Your task to perform on an android device: Add razer deathadder to the cart on walmart.com, then select checkout. Image 0: 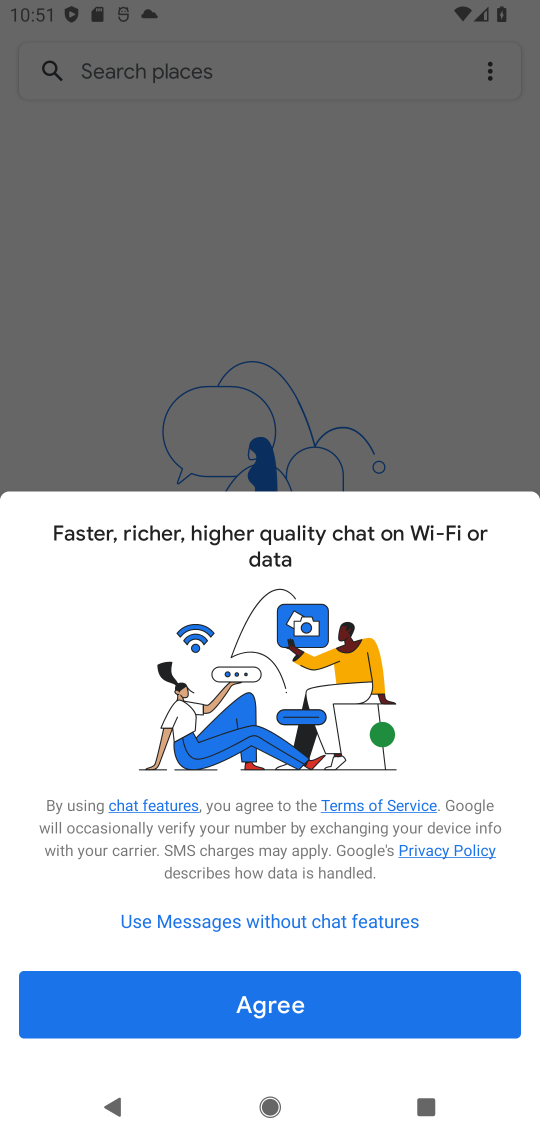
Step 0: press home button
Your task to perform on an android device: Add razer deathadder to the cart on walmart.com, then select checkout. Image 1: 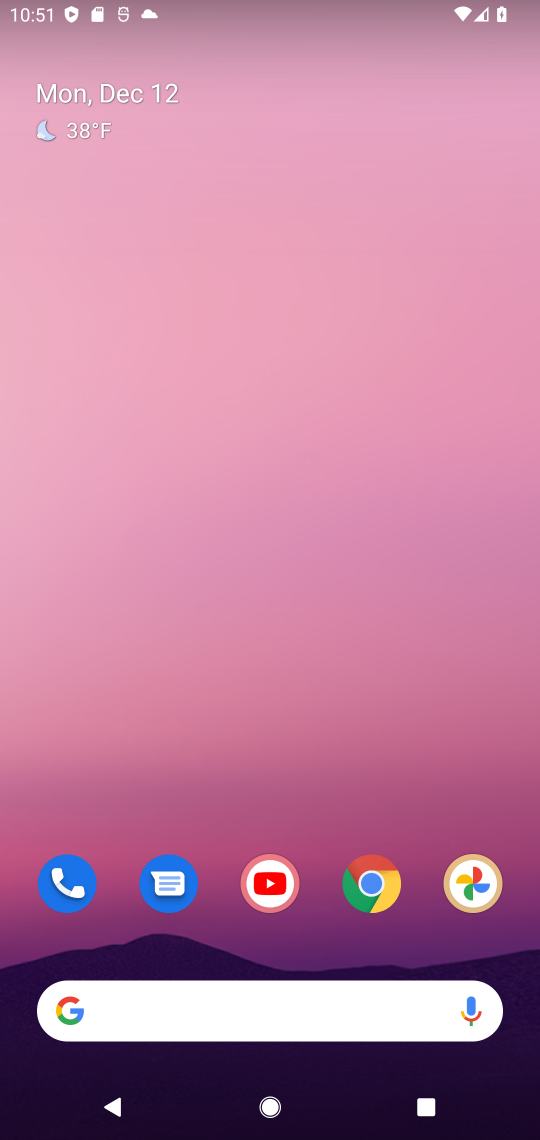
Step 1: click (269, 1019)
Your task to perform on an android device: Add razer deathadder to the cart on walmart.com, then select checkout. Image 2: 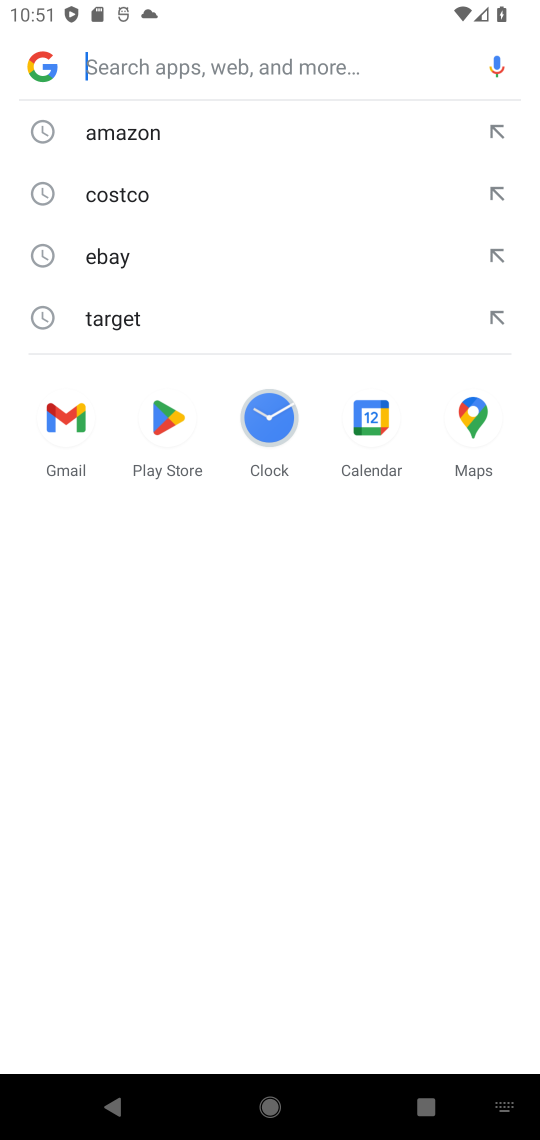
Step 2: type "walmart.com"
Your task to perform on an android device: Add razer deathadder to the cart on walmart.com, then select checkout. Image 3: 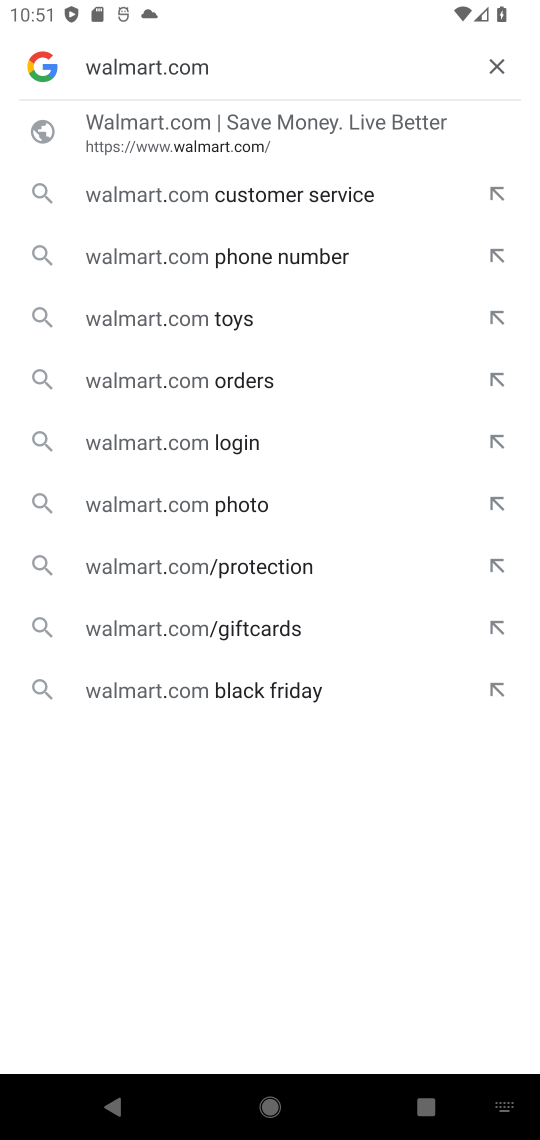
Step 3: click (249, 147)
Your task to perform on an android device: Add razer deathadder to the cart on walmart.com, then select checkout. Image 4: 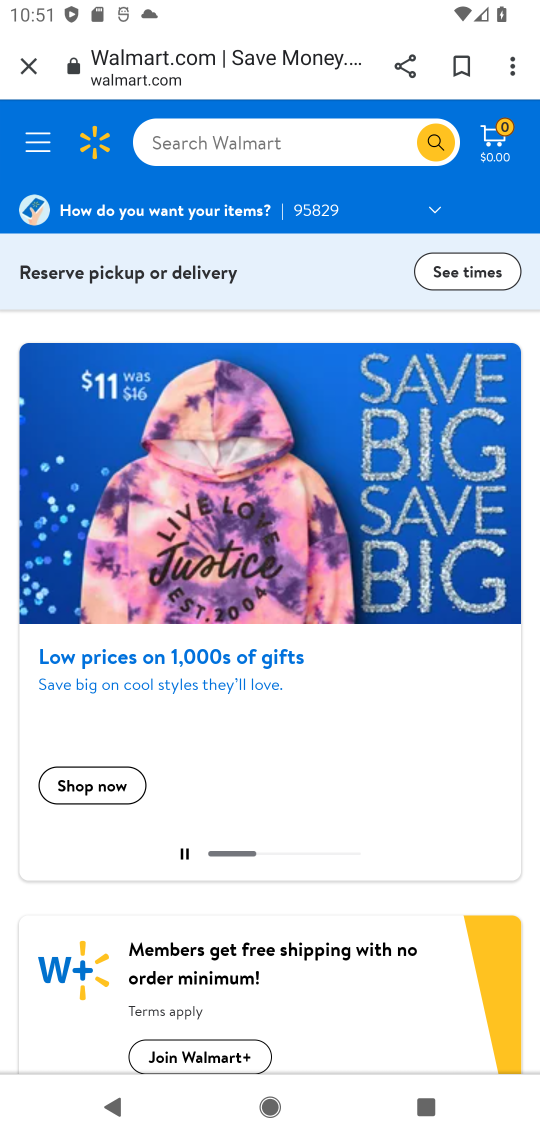
Step 4: click (249, 147)
Your task to perform on an android device: Add razer deathadder to the cart on walmart.com, then select checkout. Image 5: 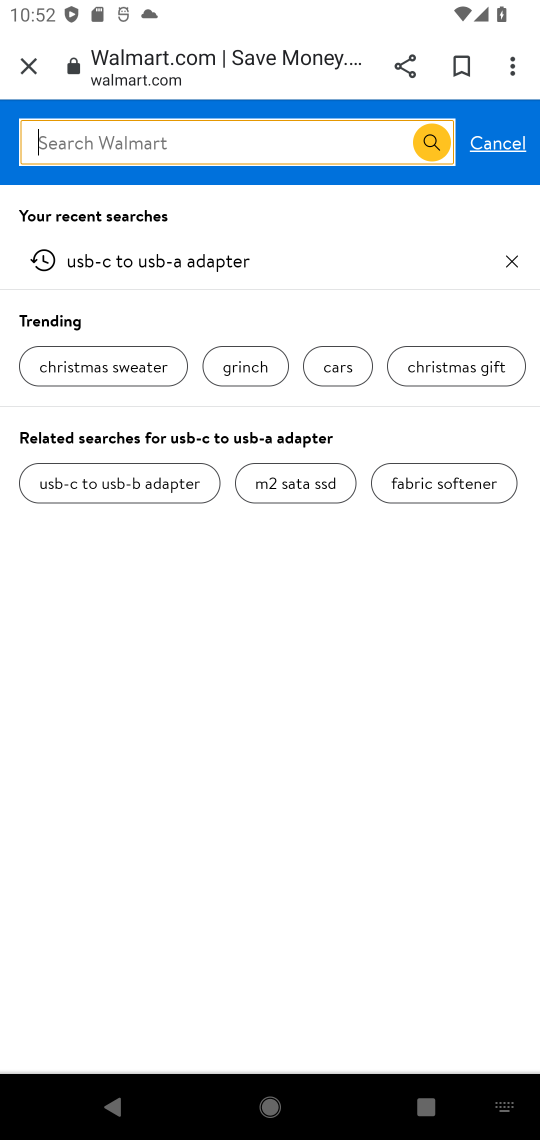
Step 5: type "razer deathadder"
Your task to perform on an android device: Add razer deathadder to the cart on walmart.com, then select checkout. Image 6: 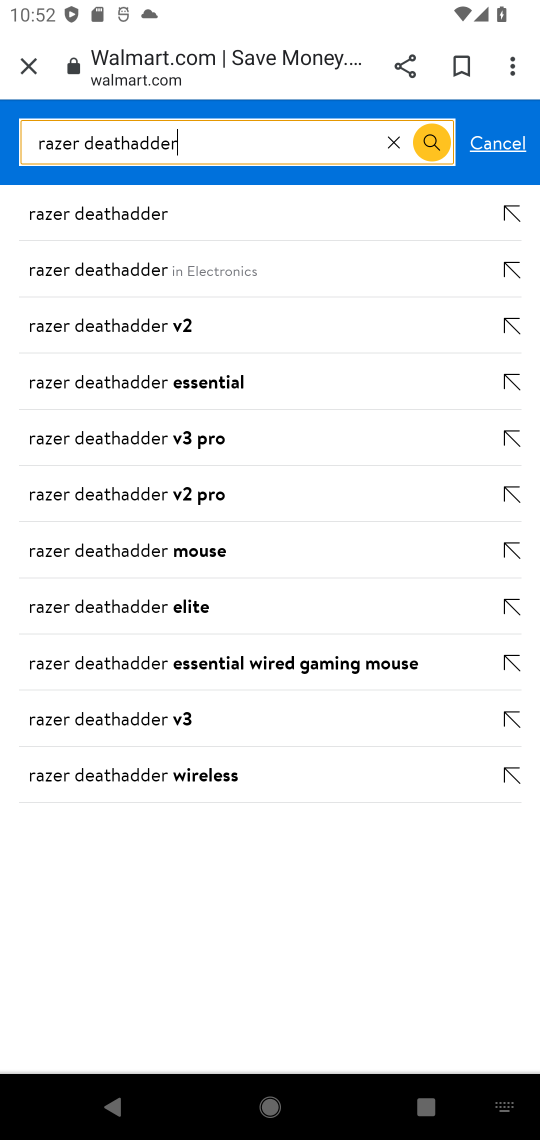
Step 6: click (138, 212)
Your task to perform on an android device: Add razer deathadder to the cart on walmart.com, then select checkout. Image 7: 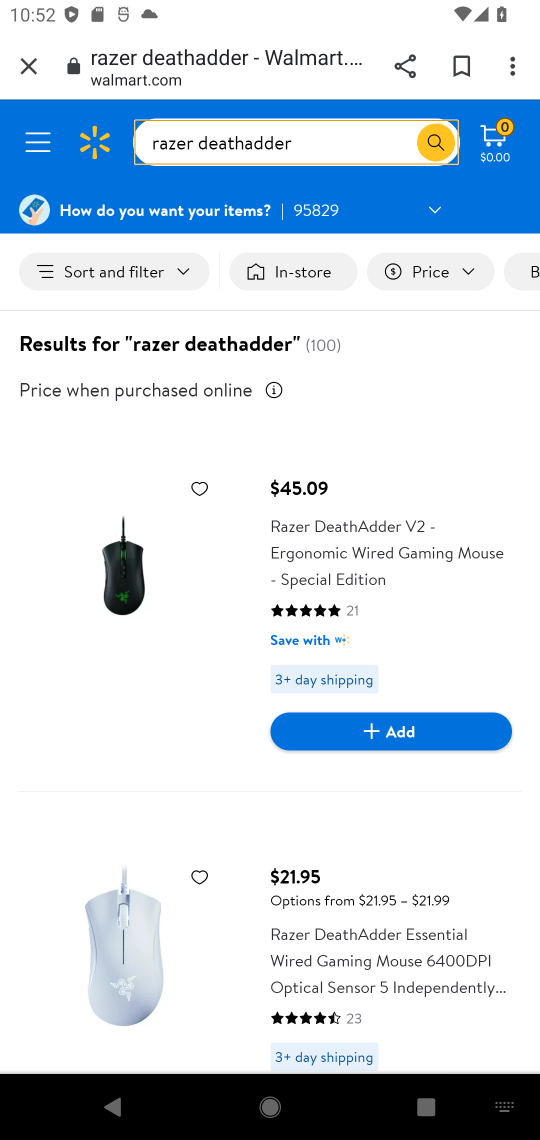
Step 7: click (372, 736)
Your task to perform on an android device: Add razer deathadder to the cart on walmart.com, then select checkout. Image 8: 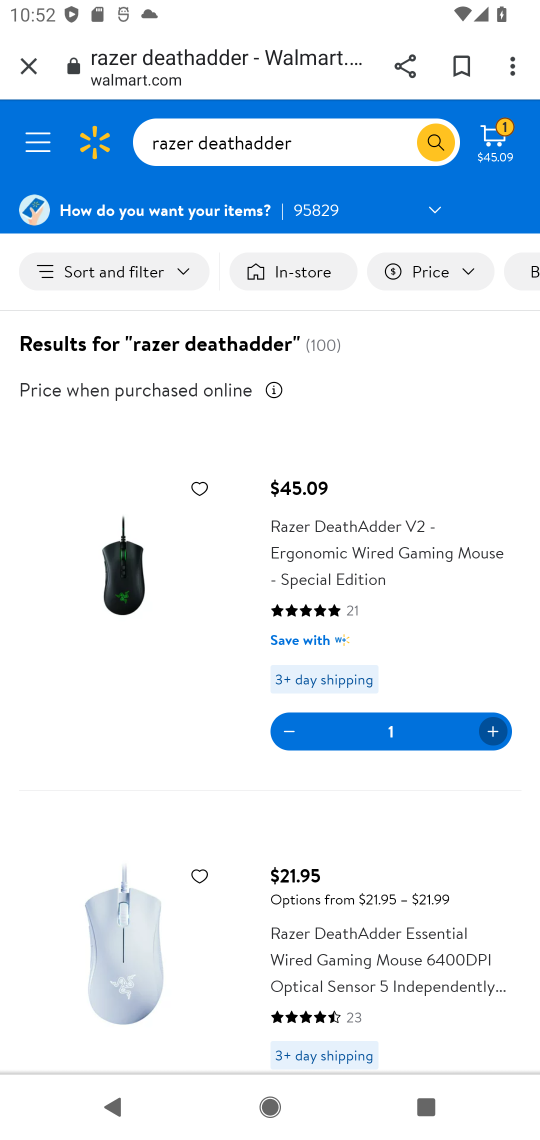
Step 8: click (506, 131)
Your task to perform on an android device: Add razer deathadder to the cart on walmart.com, then select checkout. Image 9: 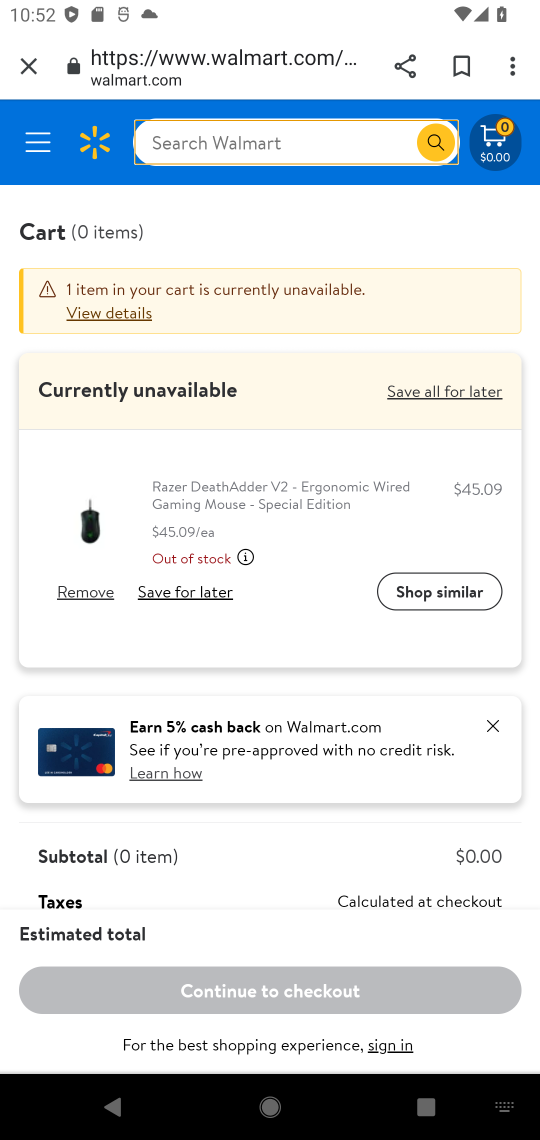
Step 9: task complete